Your task to perform on an android device: toggle notifications settings in the gmail app Image 0: 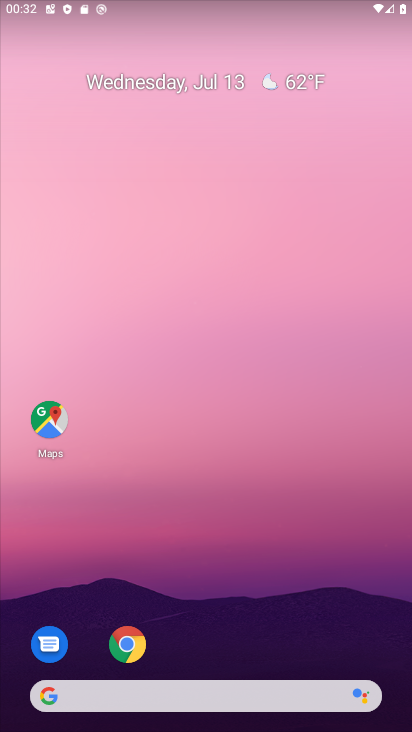
Step 0: drag from (193, 665) to (89, 66)
Your task to perform on an android device: toggle notifications settings in the gmail app Image 1: 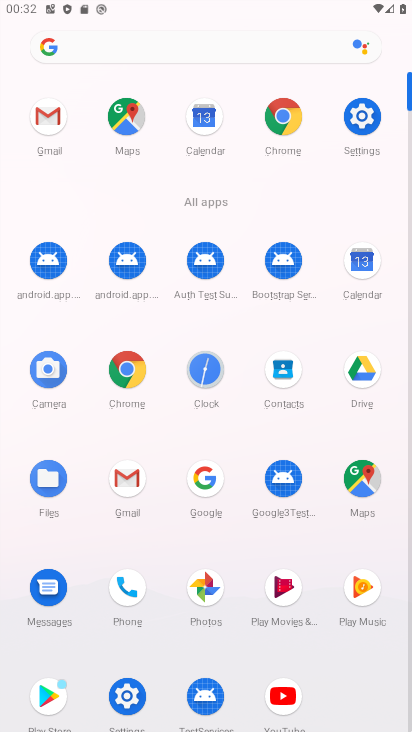
Step 1: click (140, 489)
Your task to perform on an android device: toggle notifications settings in the gmail app Image 2: 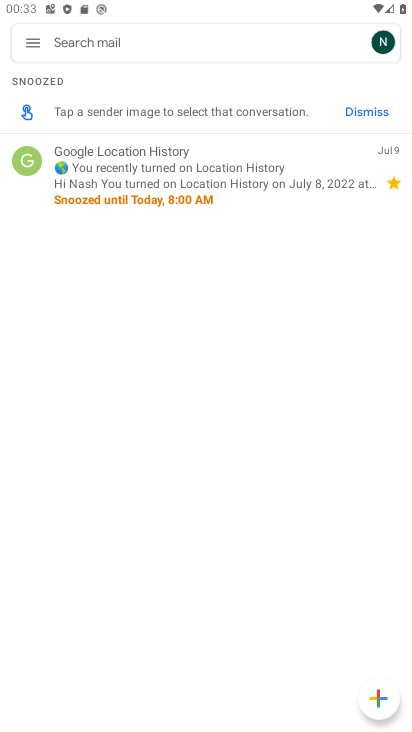
Step 2: click (28, 43)
Your task to perform on an android device: toggle notifications settings in the gmail app Image 3: 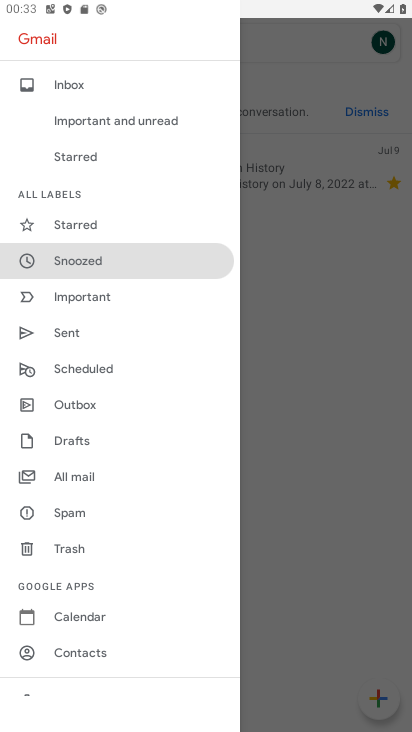
Step 3: drag from (64, 636) to (38, 330)
Your task to perform on an android device: toggle notifications settings in the gmail app Image 4: 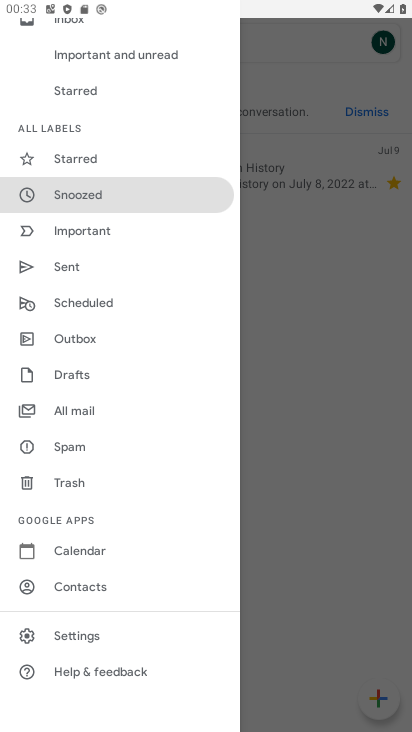
Step 4: click (46, 632)
Your task to perform on an android device: toggle notifications settings in the gmail app Image 5: 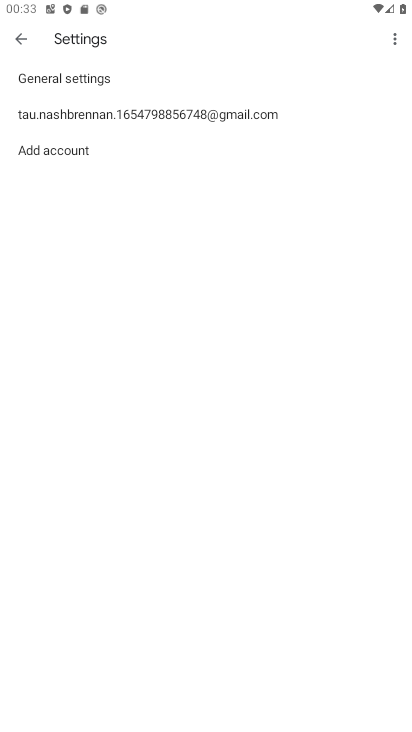
Step 5: click (94, 81)
Your task to perform on an android device: toggle notifications settings in the gmail app Image 6: 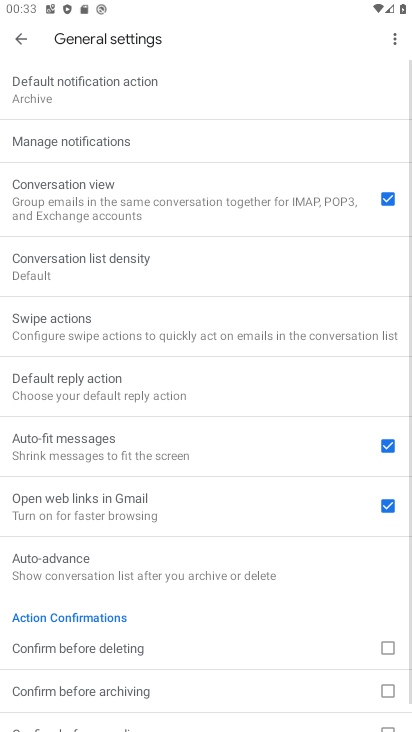
Step 6: click (171, 128)
Your task to perform on an android device: toggle notifications settings in the gmail app Image 7: 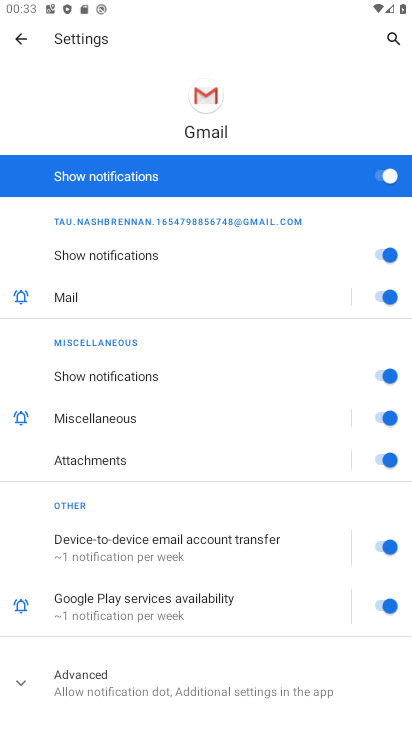
Step 7: click (383, 178)
Your task to perform on an android device: toggle notifications settings in the gmail app Image 8: 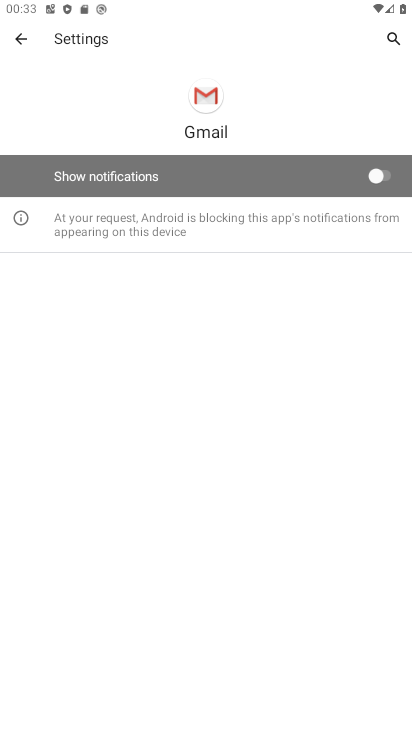
Step 8: task complete